Your task to perform on an android device: Search for sushi restaurants on Maps Image 0: 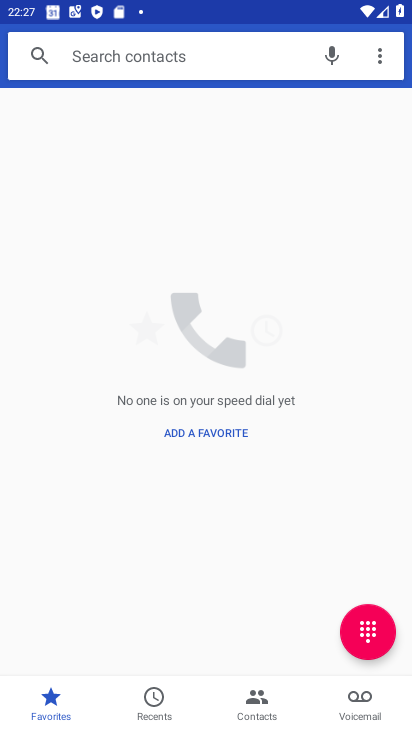
Step 0: press home button
Your task to perform on an android device: Search for sushi restaurants on Maps Image 1: 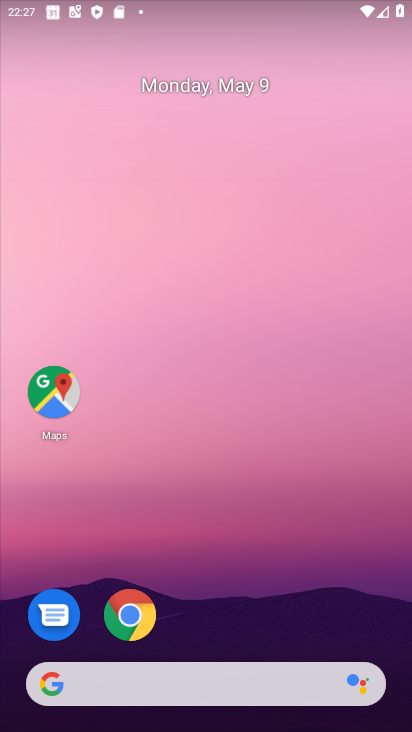
Step 1: click (43, 393)
Your task to perform on an android device: Search for sushi restaurants on Maps Image 2: 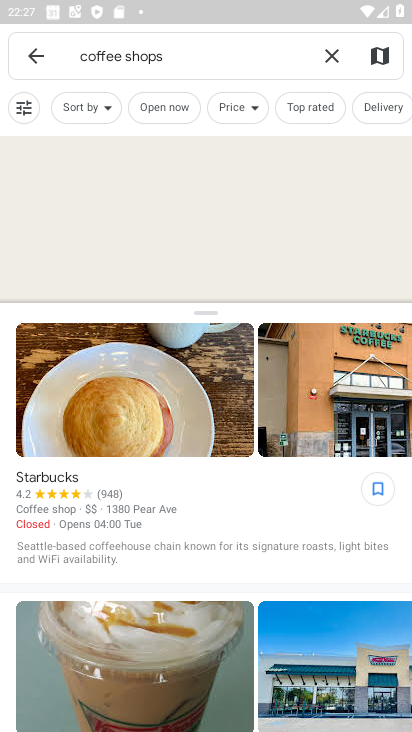
Step 2: click (319, 57)
Your task to perform on an android device: Search for sushi restaurants on Maps Image 3: 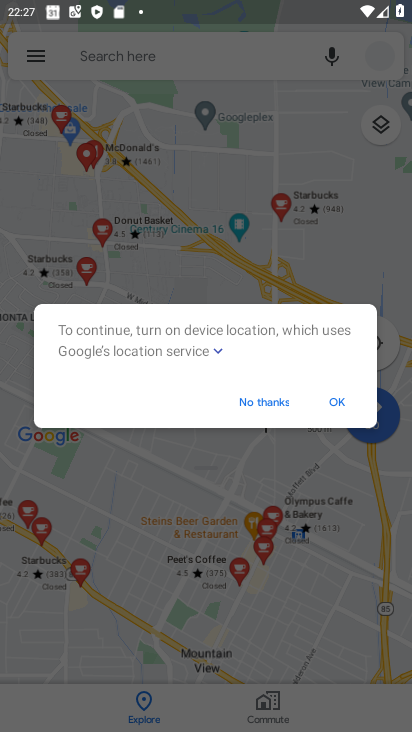
Step 3: click (339, 399)
Your task to perform on an android device: Search for sushi restaurants on Maps Image 4: 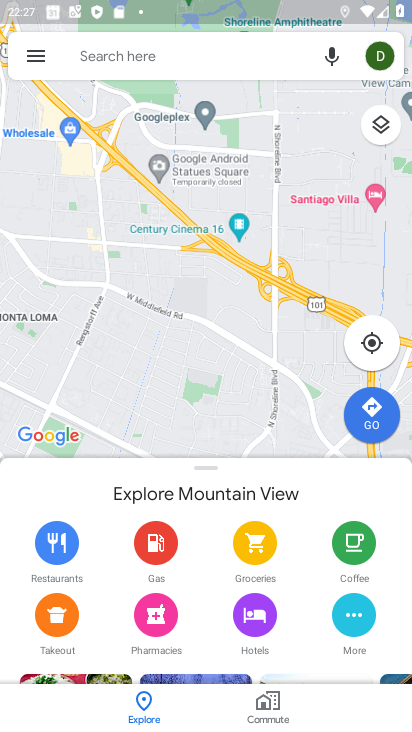
Step 4: click (98, 54)
Your task to perform on an android device: Search for sushi restaurants on Maps Image 5: 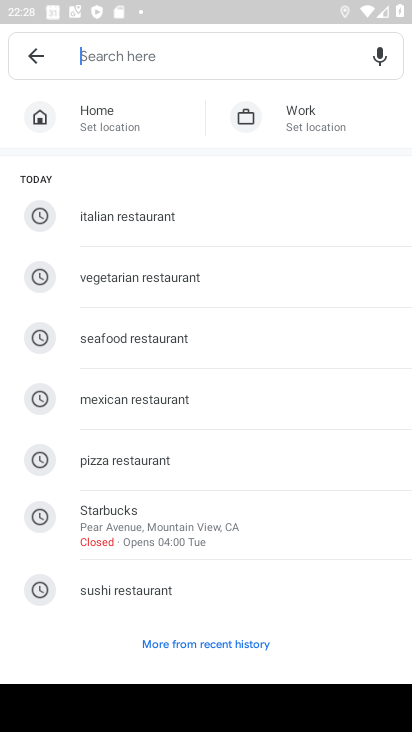
Step 5: type "sushi restaurants"
Your task to perform on an android device: Search for sushi restaurants on Maps Image 6: 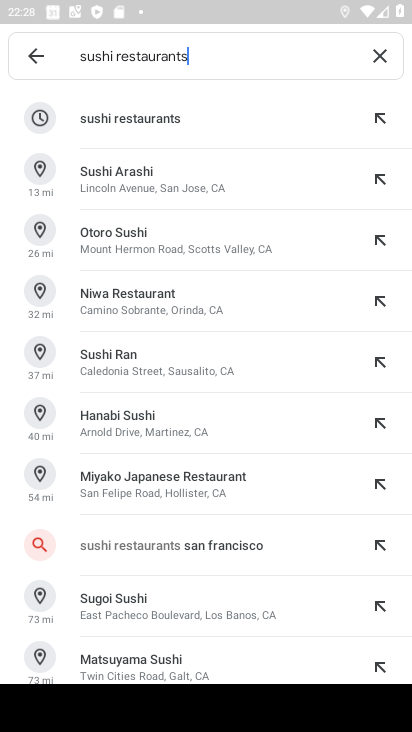
Step 6: click (168, 128)
Your task to perform on an android device: Search for sushi restaurants on Maps Image 7: 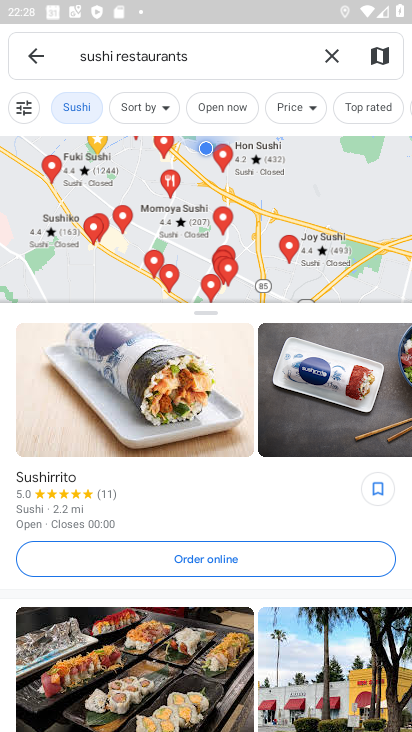
Step 7: task complete